Your task to perform on an android device: toggle translation in the chrome app Image 0: 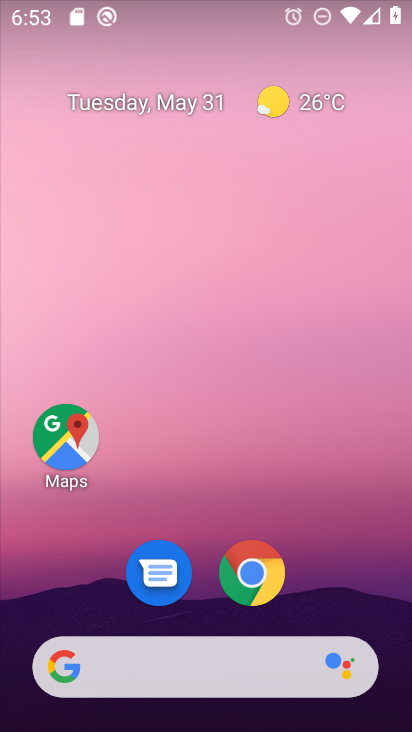
Step 0: drag from (378, 614) to (338, 147)
Your task to perform on an android device: toggle translation in the chrome app Image 1: 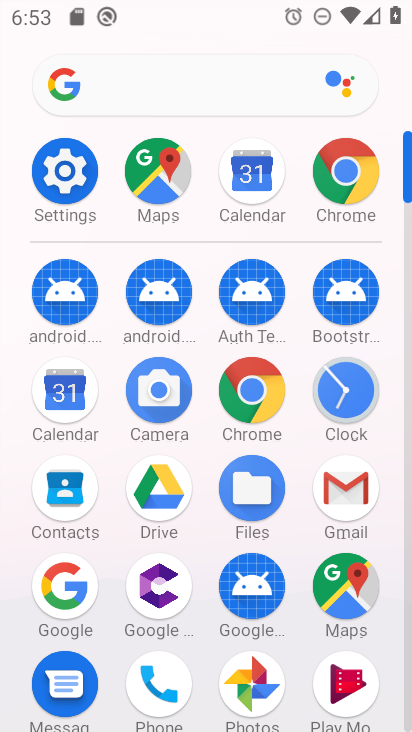
Step 1: click (344, 193)
Your task to perform on an android device: toggle translation in the chrome app Image 2: 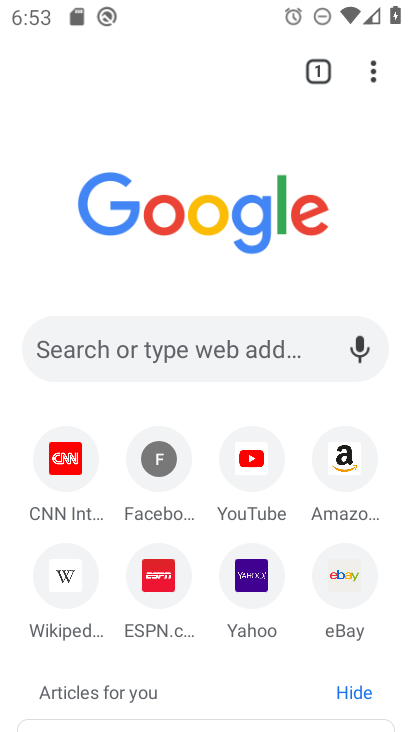
Step 2: click (375, 65)
Your task to perform on an android device: toggle translation in the chrome app Image 3: 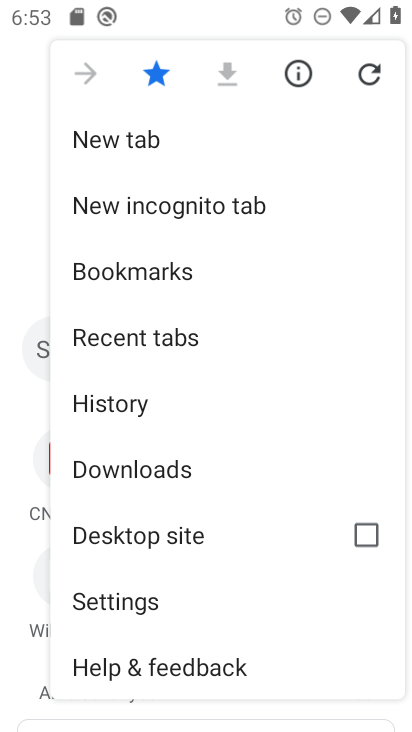
Step 3: click (160, 601)
Your task to perform on an android device: toggle translation in the chrome app Image 4: 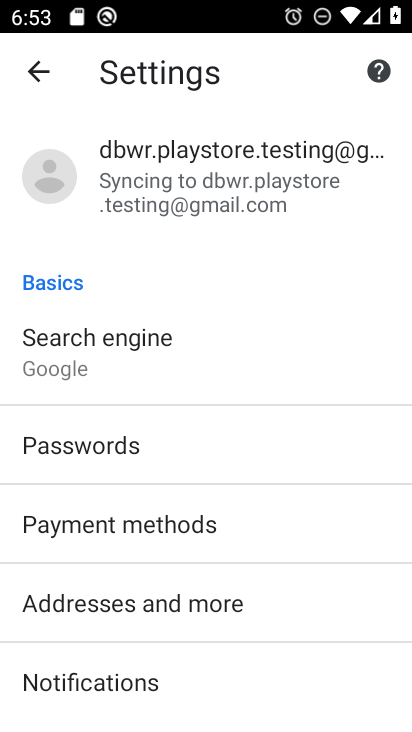
Step 4: click (231, 203)
Your task to perform on an android device: toggle translation in the chrome app Image 5: 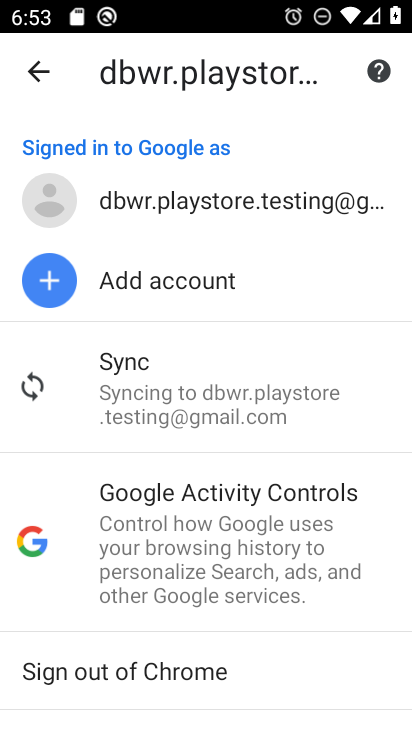
Step 5: press back button
Your task to perform on an android device: toggle translation in the chrome app Image 6: 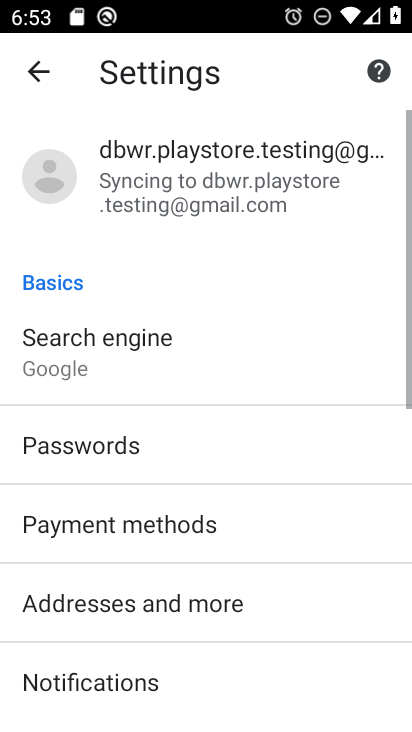
Step 6: drag from (287, 641) to (277, 124)
Your task to perform on an android device: toggle translation in the chrome app Image 7: 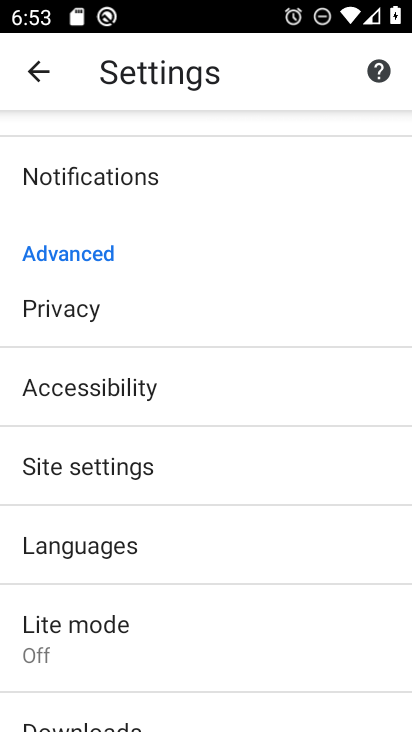
Step 7: click (192, 541)
Your task to perform on an android device: toggle translation in the chrome app Image 8: 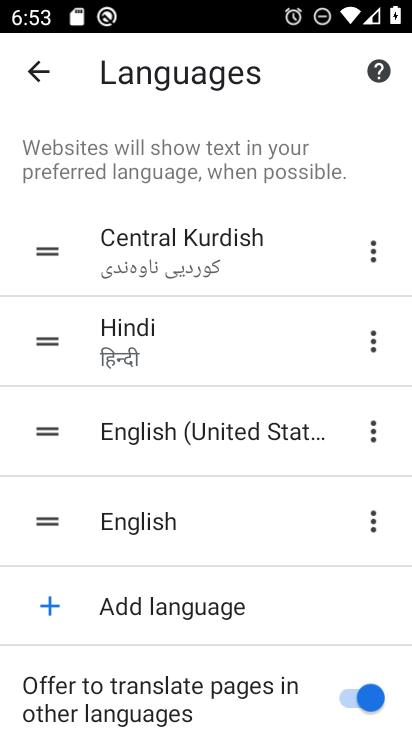
Step 8: click (340, 677)
Your task to perform on an android device: toggle translation in the chrome app Image 9: 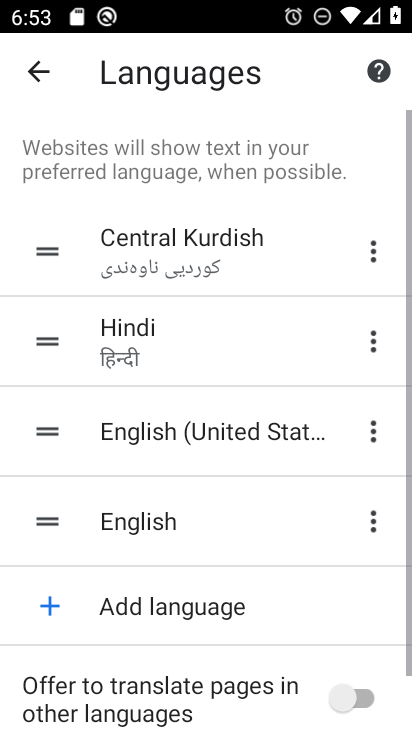
Step 9: task complete